Your task to perform on an android device: Open maps Image 0: 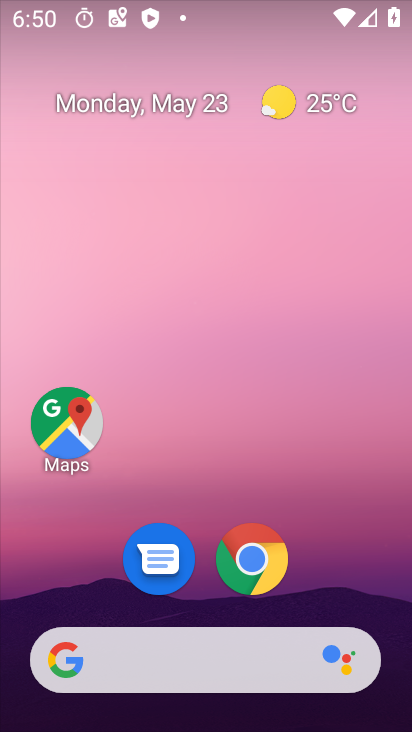
Step 0: drag from (400, 637) to (315, 5)
Your task to perform on an android device: Open maps Image 1: 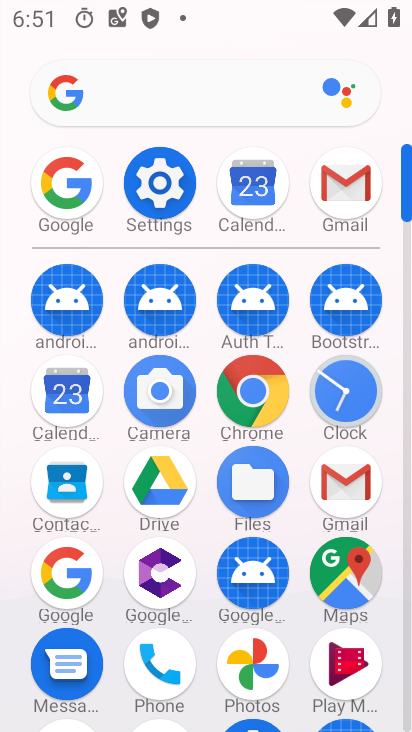
Step 1: click (363, 581)
Your task to perform on an android device: Open maps Image 2: 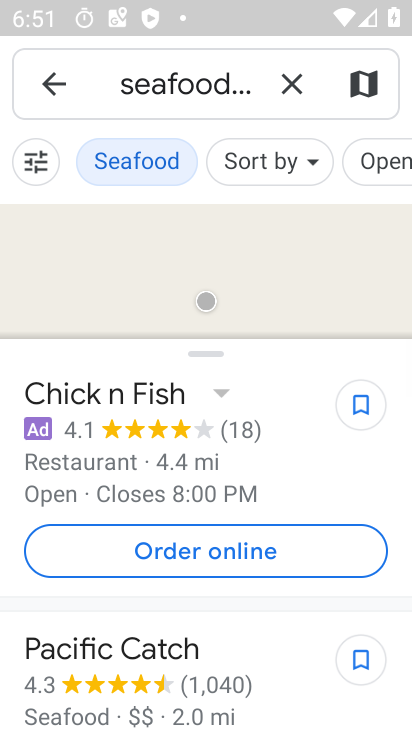
Step 2: click (288, 89)
Your task to perform on an android device: Open maps Image 3: 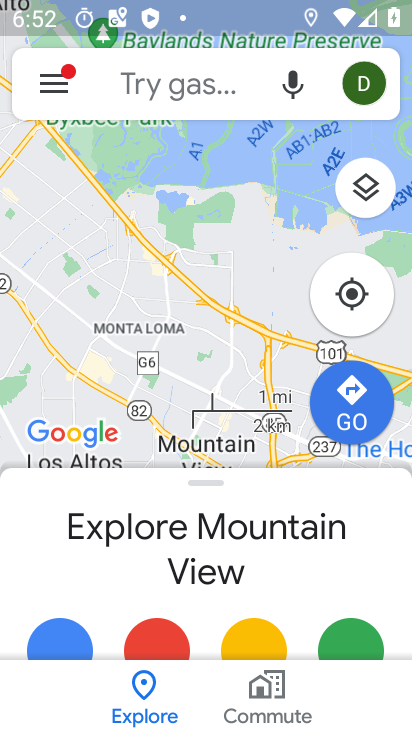
Step 3: task complete